Your task to perform on an android device: Open accessibility settings Image 0: 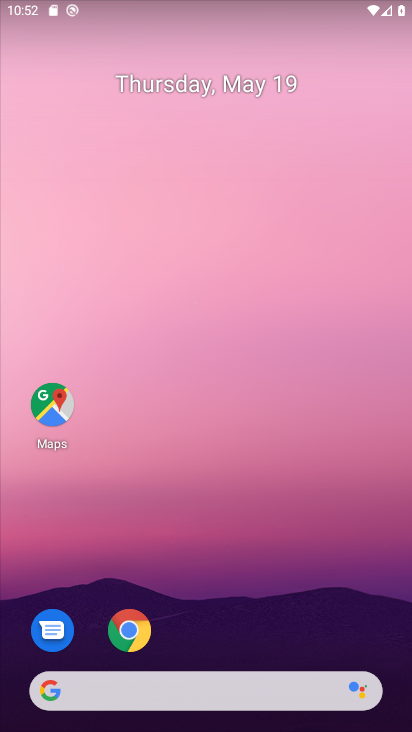
Step 0: drag from (244, 442) to (212, 62)
Your task to perform on an android device: Open accessibility settings Image 1: 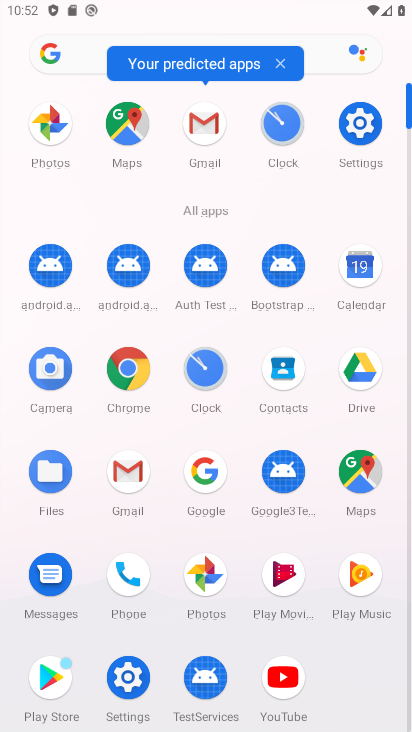
Step 1: click (361, 121)
Your task to perform on an android device: Open accessibility settings Image 2: 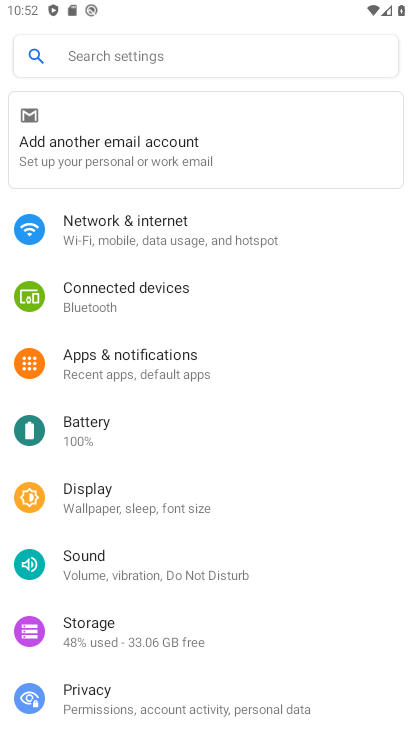
Step 2: drag from (108, 529) to (138, 441)
Your task to perform on an android device: Open accessibility settings Image 3: 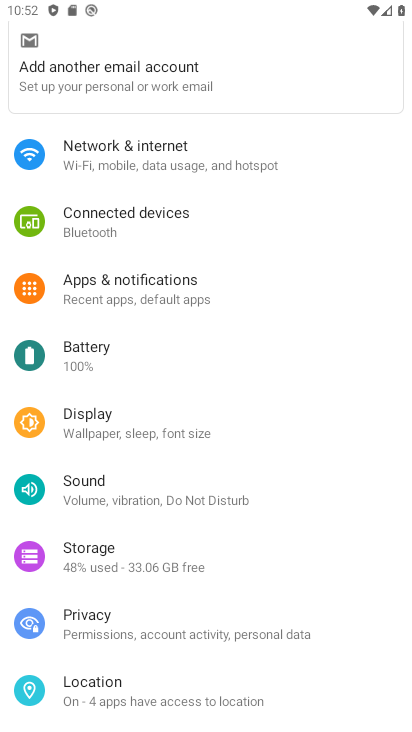
Step 3: drag from (114, 473) to (157, 388)
Your task to perform on an android device: Open accessibility settings Image 4: 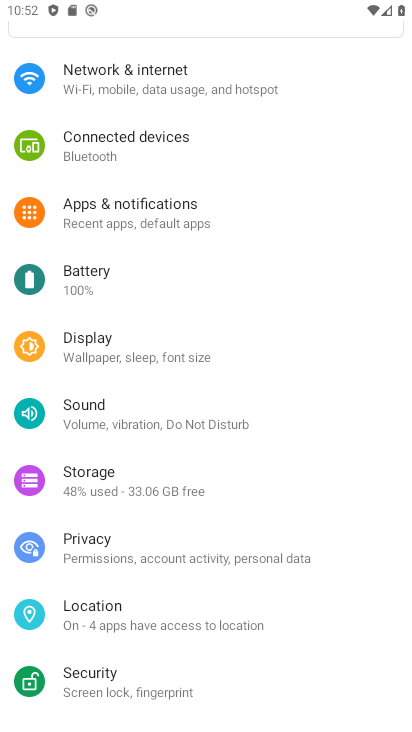
Step 4: drag from (101, 522) to (158, 440)
Your task to perform on an android device: Open accessibility settings Image 5: 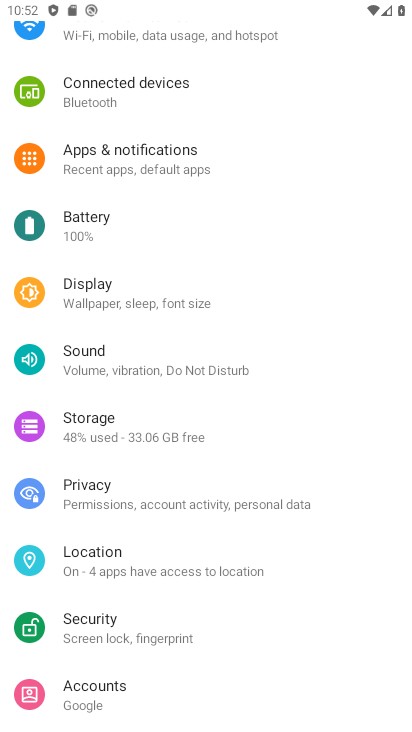
Step 5: drag from (84, 531) to (107, 445)
Your task to perform on an android device: Open accessibility settings Image 6: 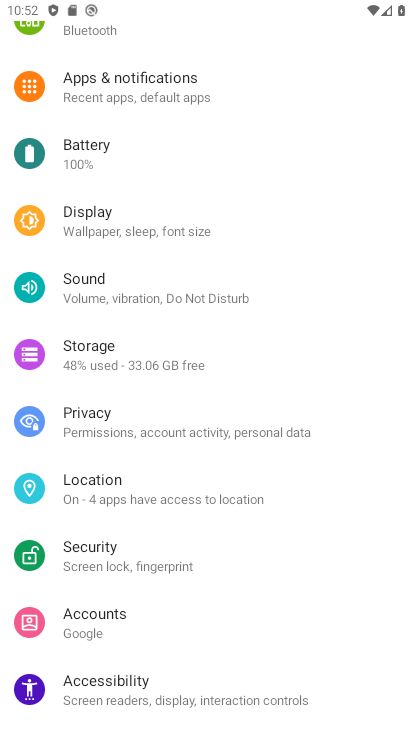
Step 6: drag from (64, 581) to (144, 479)
Your task to perform on an android device: Open accessibility settings Image 7: 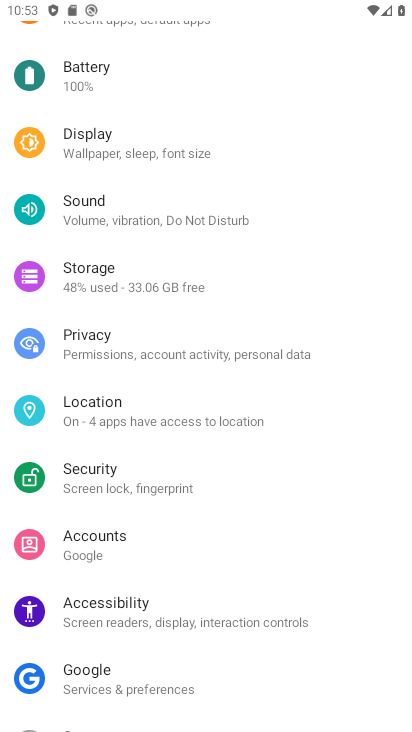
Step 7: drag from (80, 523) to (142, 451)
Your task to perform on an android device: Open accessibility settings Image 8: 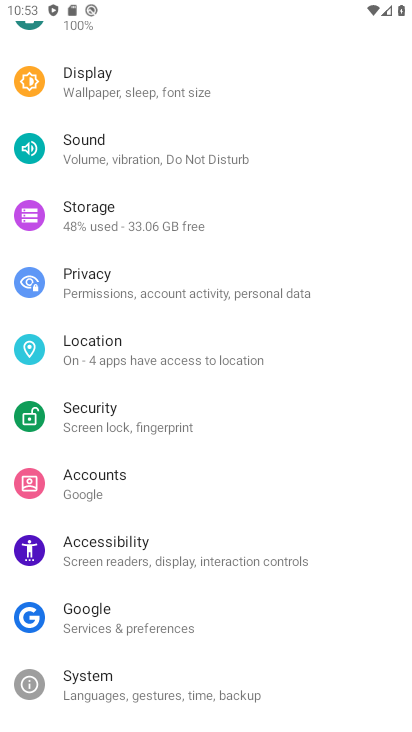
Step 8: click (81, 542)
Your task to perform on an android device: Open accessibility settings Image 9: 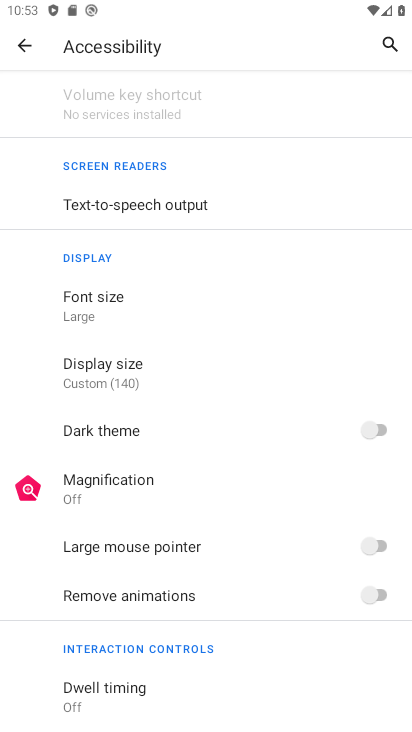
Step 9: task complete